Your task to perform on an android device: Open maps Image 0: 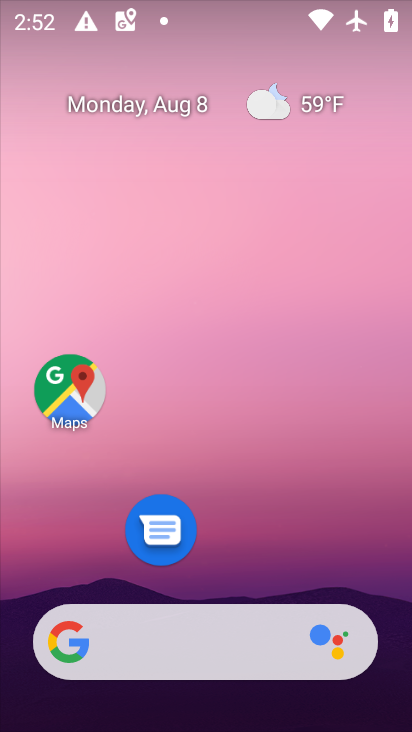
Step 0: drag from (243, 582) to (246, 10)
Your task to perform on an android device: Open maps Image 1: 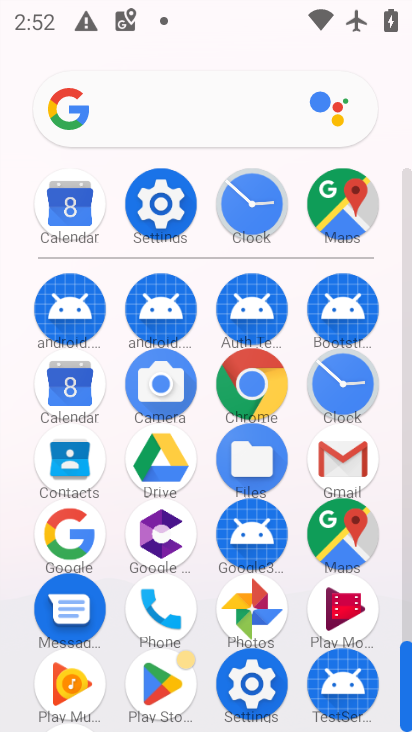
Step 1: click (341, 531)
Your task to perform on an android device: Open maps Image 2: 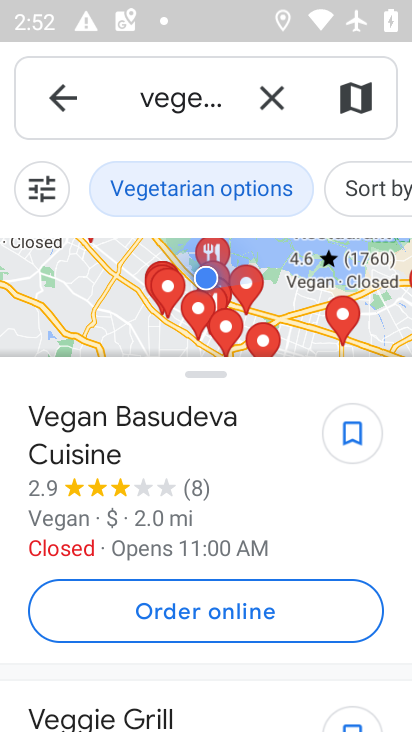
Step 2: task complete